Your task to perform on an android device: turn on showing notifications on the lock screen Image 0: 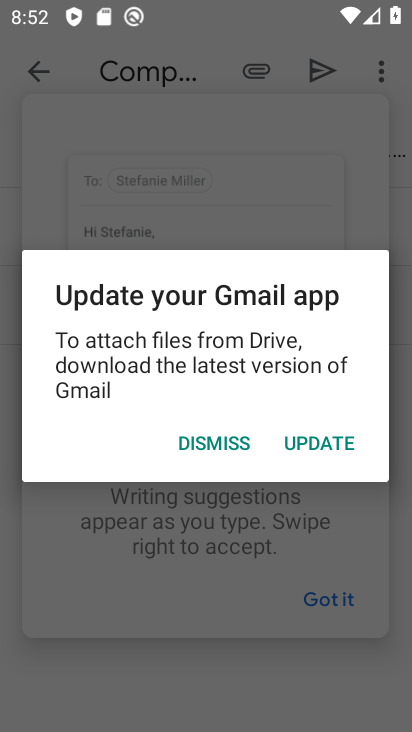
Step 0: press home button
Your task to perform on an android device: turn on showing notifications on the lock screen Image 1: 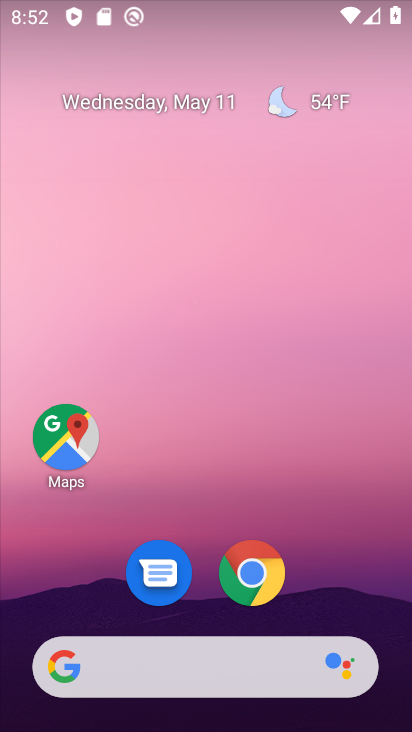
Step 1: drag from (352, 656) to (337, 32)
Your task to perform on an android device: turn on showing notifications on the lock screen Image 2: 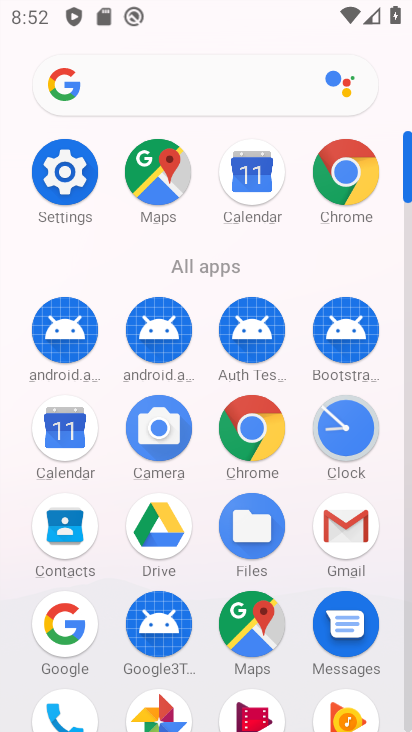
Step 2: drag from (289, 660) to (298, 272)
Your task to perform on an android device: turn on showing notifications on the lock screen Image 3: 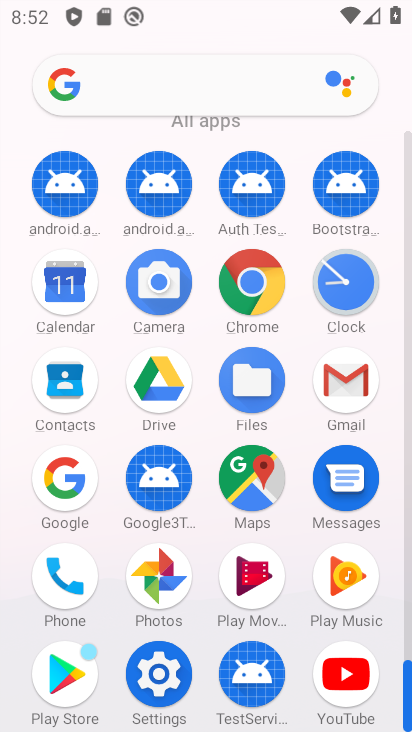
Step 3: click (160, 664)
Your task to perform on an android device: turn on showing notifications on the lock screen Image 4: 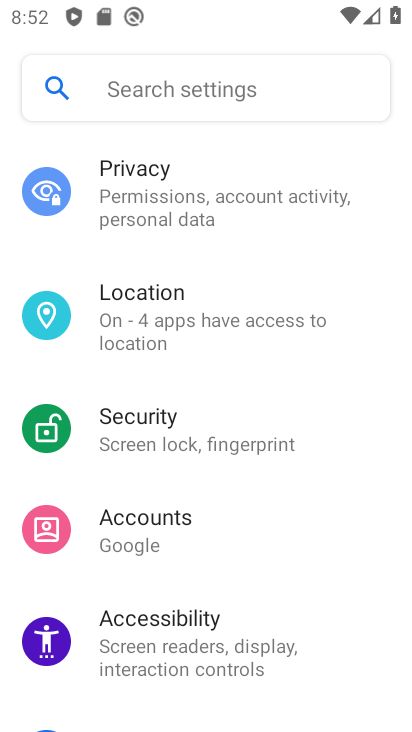
Step 4: drag from (240, 213) to (258, 652)
Your task to perform on an android device: turn on showing notifications on the lock screen Image 5: 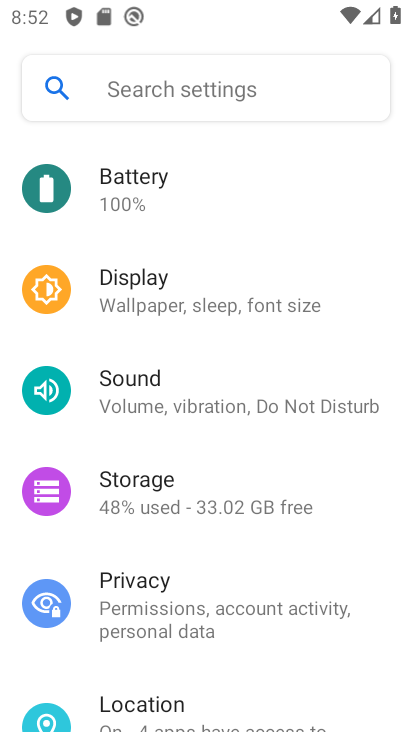
Step 5: drag from (208, 289) to (234, 699)
Your task to perform on an android device: turn on showing notifications on the lock screen Image 6: 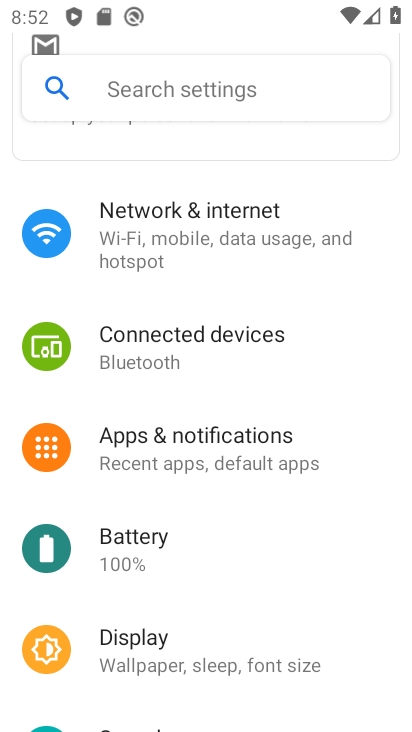
Step 6: click (238, 455)
Your task to perform on an android device: turn on showing notifications on the lock screen Image 7: 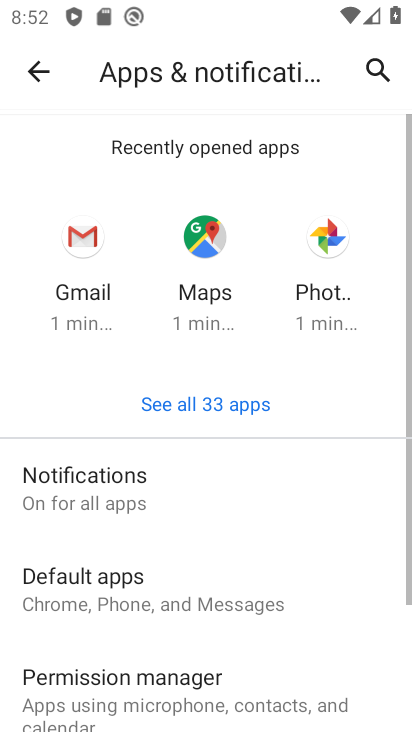
Step 7: drag from (240, 706) to (263, 429)
Your task to perform on an android device: turn on showing notifications on the lock screen Image 8: 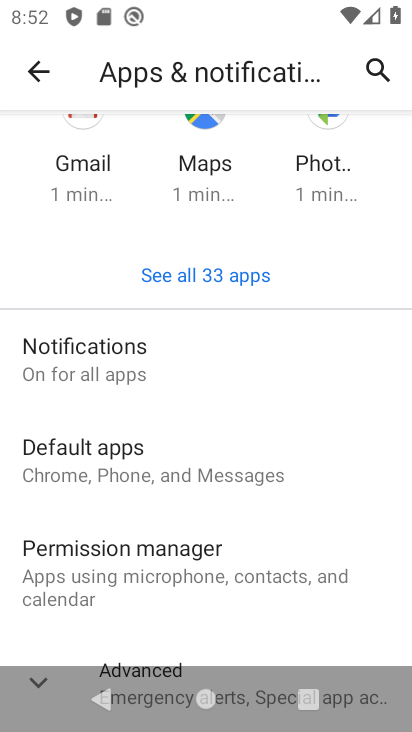
Step 8: click (139, 363)
Your task to perform on an android device: turn on showing notifications on the lock screen Image 9: 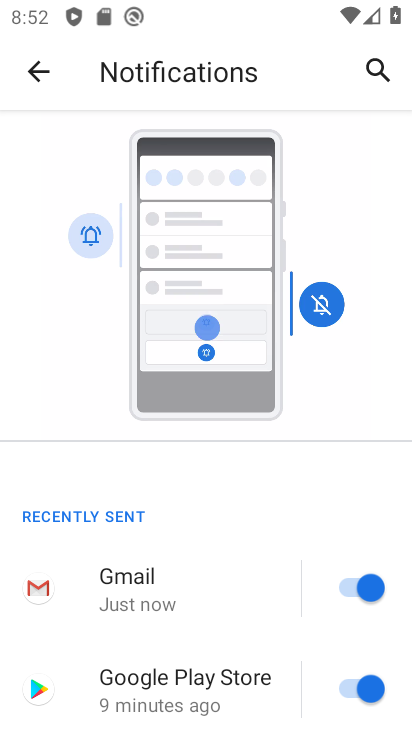
Step 9: drag from (256, 707) to (358, 2)
Your task to perform on an android device: turn on showing notifications on the lock screen Image 10: 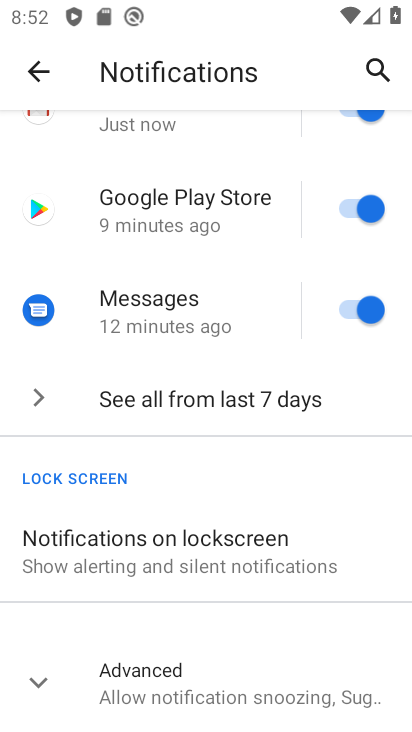
Step 10: click (283, 552)
Your task to perform on an android device: turn on showing notifications on the lock screen Image 11: 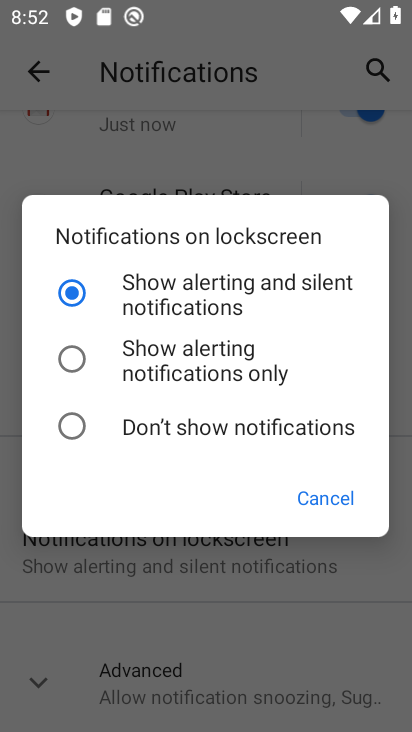
Step 11: click (69, 355)
Your task to perform on an android device: turn on showing notifications on the lock screen Image 12: 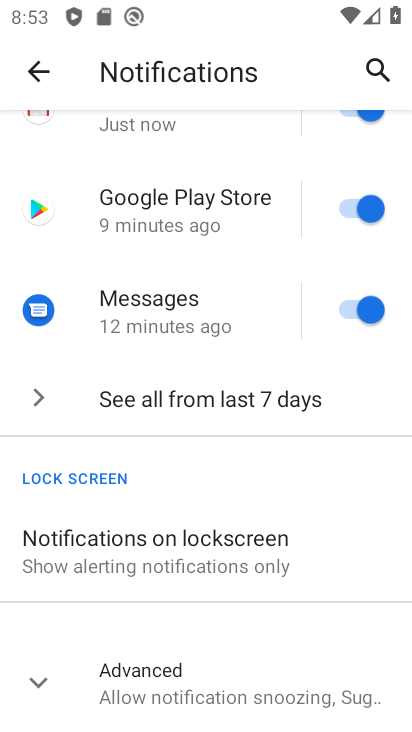
Step 12: task complete